Your task to perform on an android device: Show the shopping cart on walmart. Add macbook pro 13 inch to the cart on walmart Image 0: 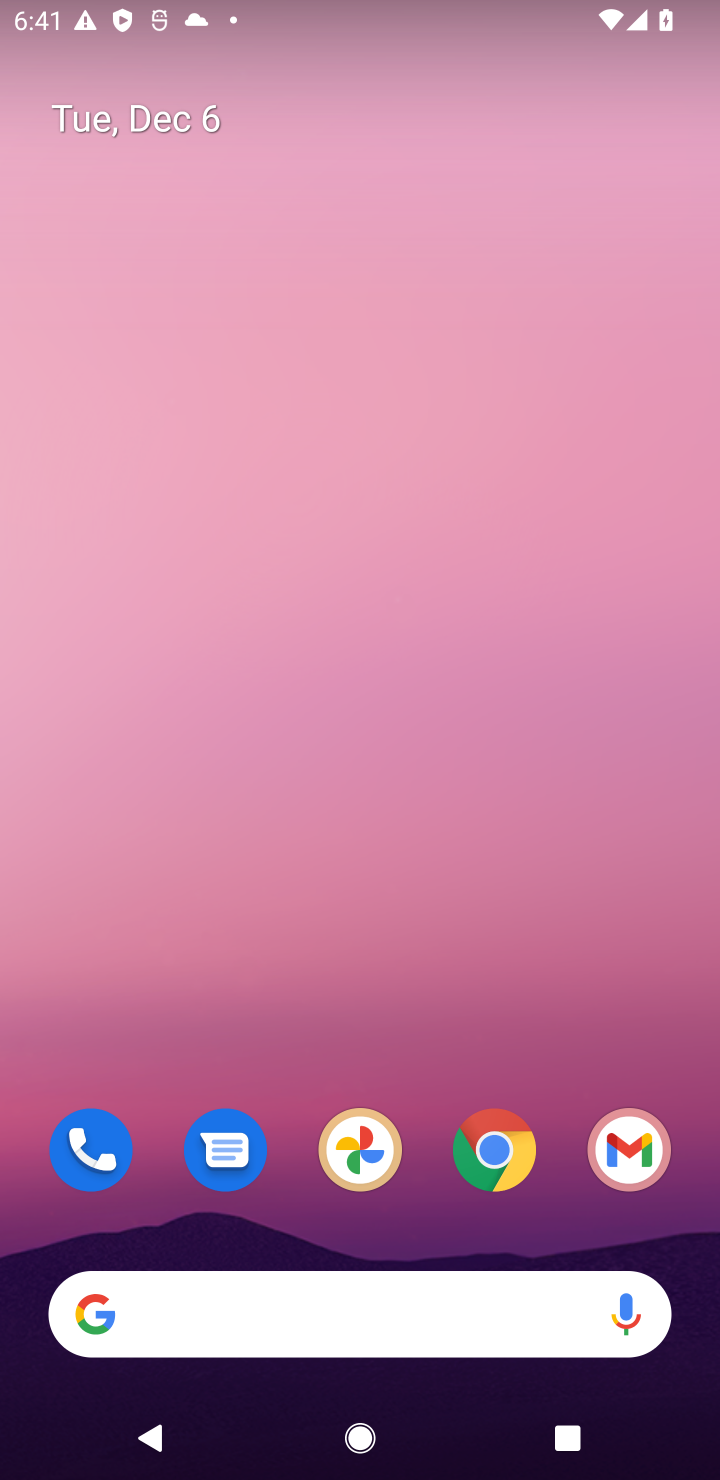
Step 0: click (506, 1162)
Your task to perform on an android device: Show the shopping cart on walmart. Add macbook pro 13 inch to the cart on walmart Image 1: 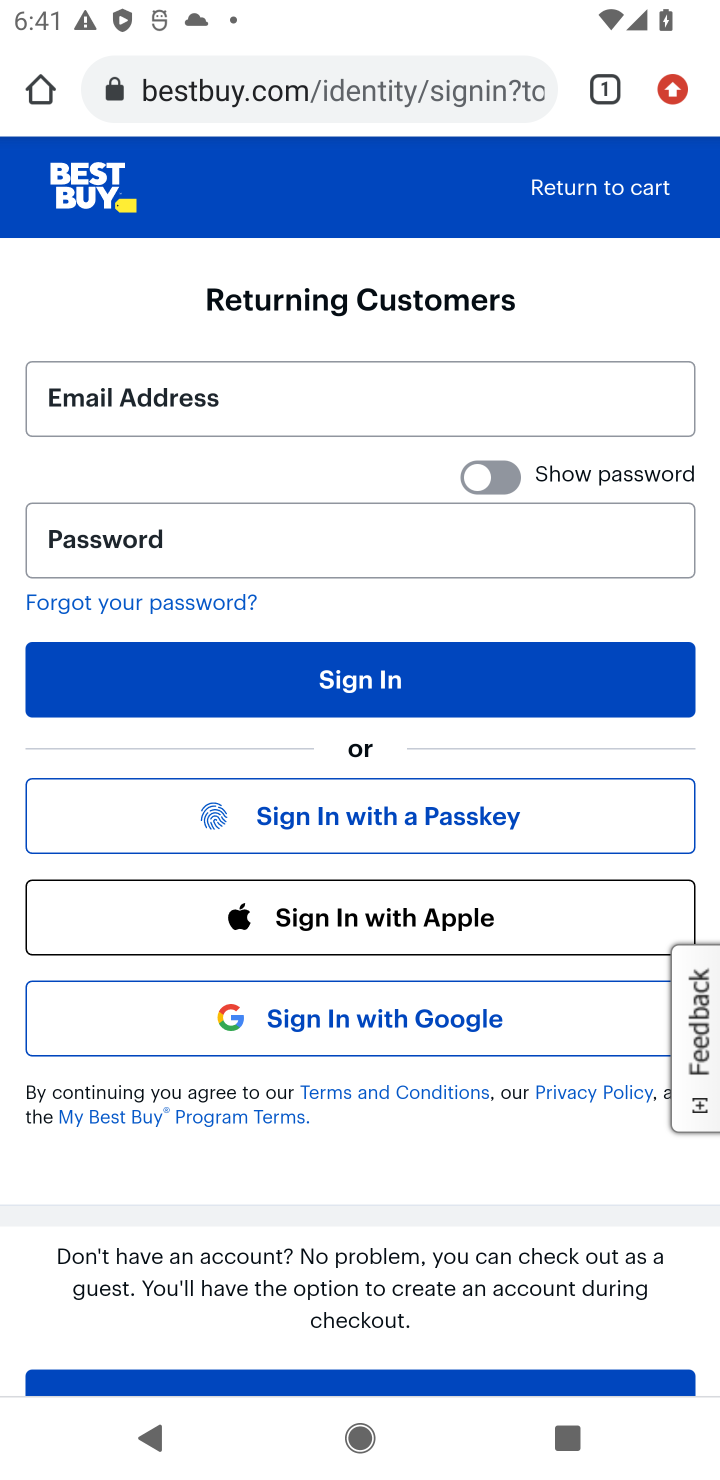
Step 1: click (260, 99)
Your task to perform on an android device: Show the shopping cart on walmart. Add macbook pro 13 inch to the cart on walmart Image 2: 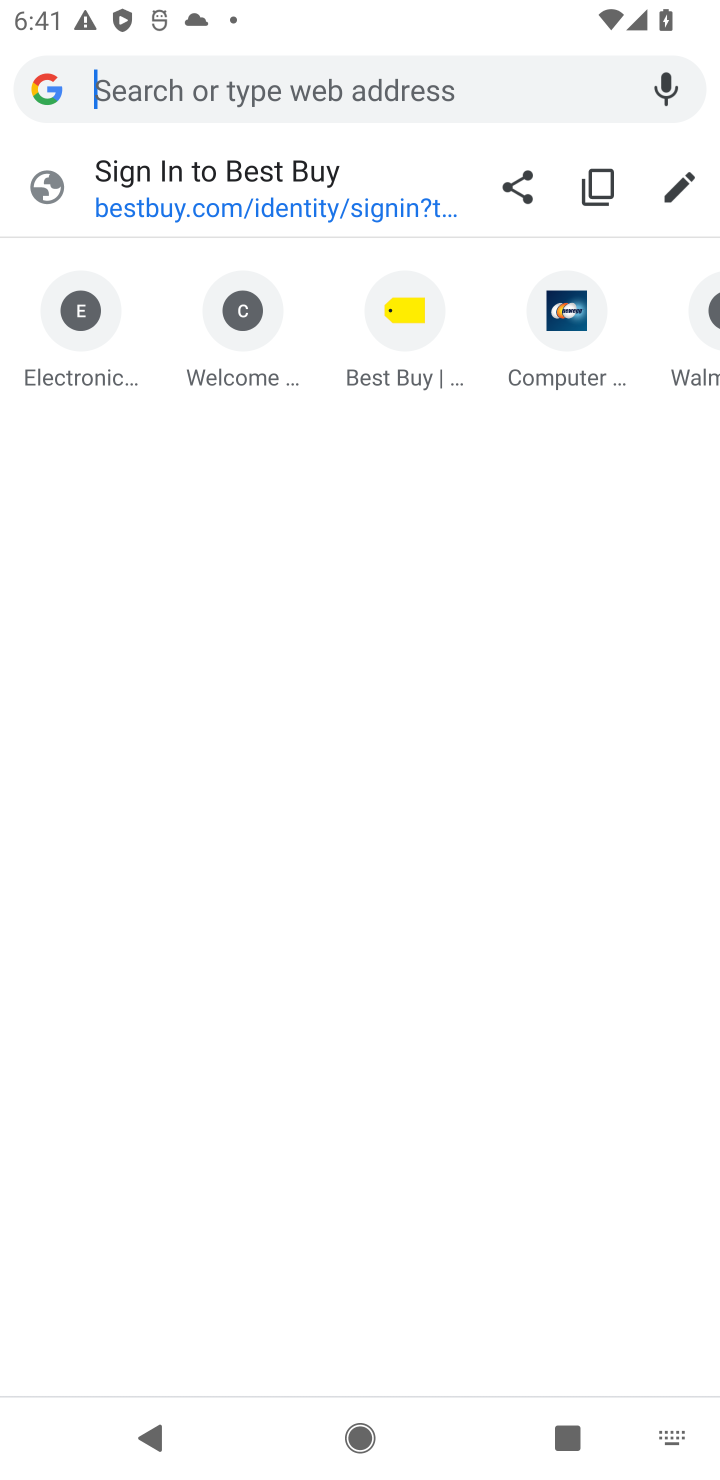
Step 2: click (244, 90)
Your task to perform on an android device: Show the shopping cart on walmart. Add macbook pro 13 inch to the cart on walmart Image 3: 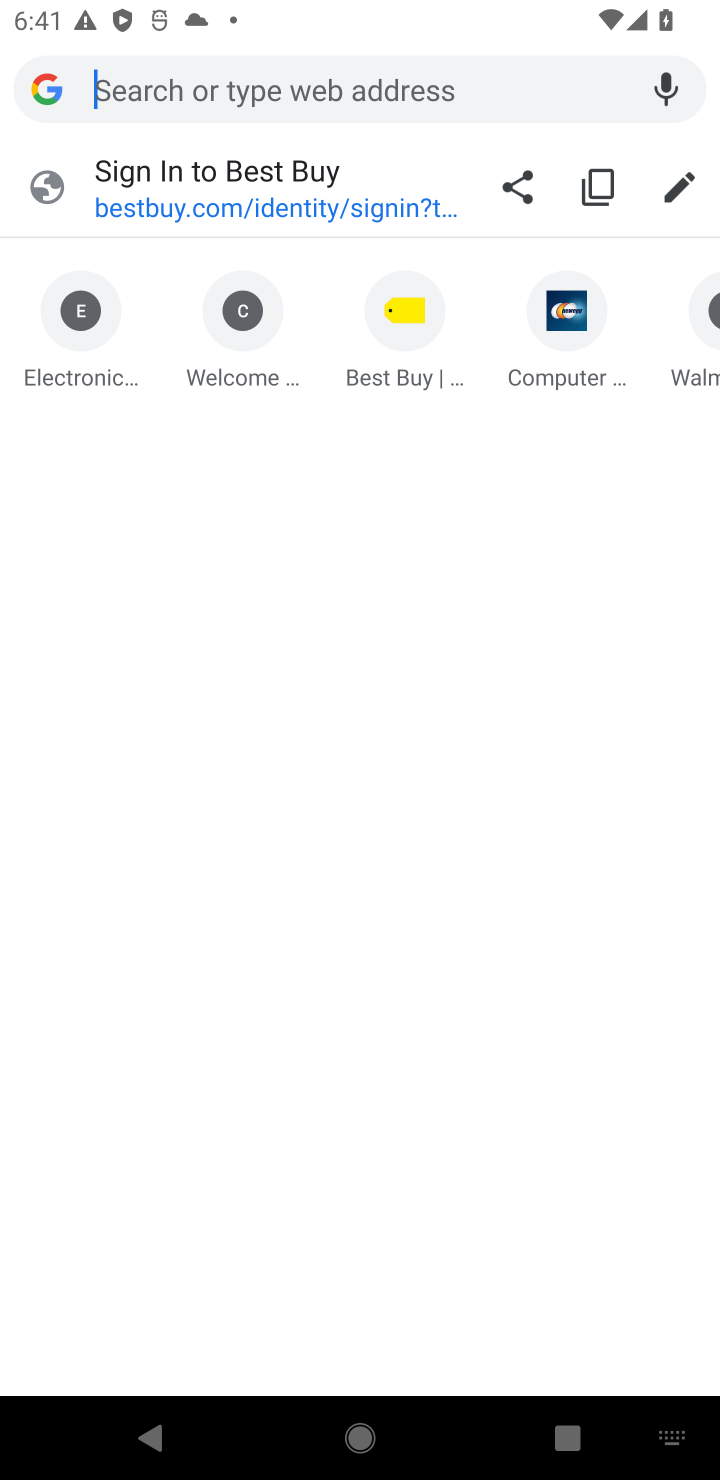
Step 3: type "walmart.com"
Your task to perform on an android device: Show the shopping cart on walmart. Add macbook pro 13 inch to the cart on walmart Image 4: 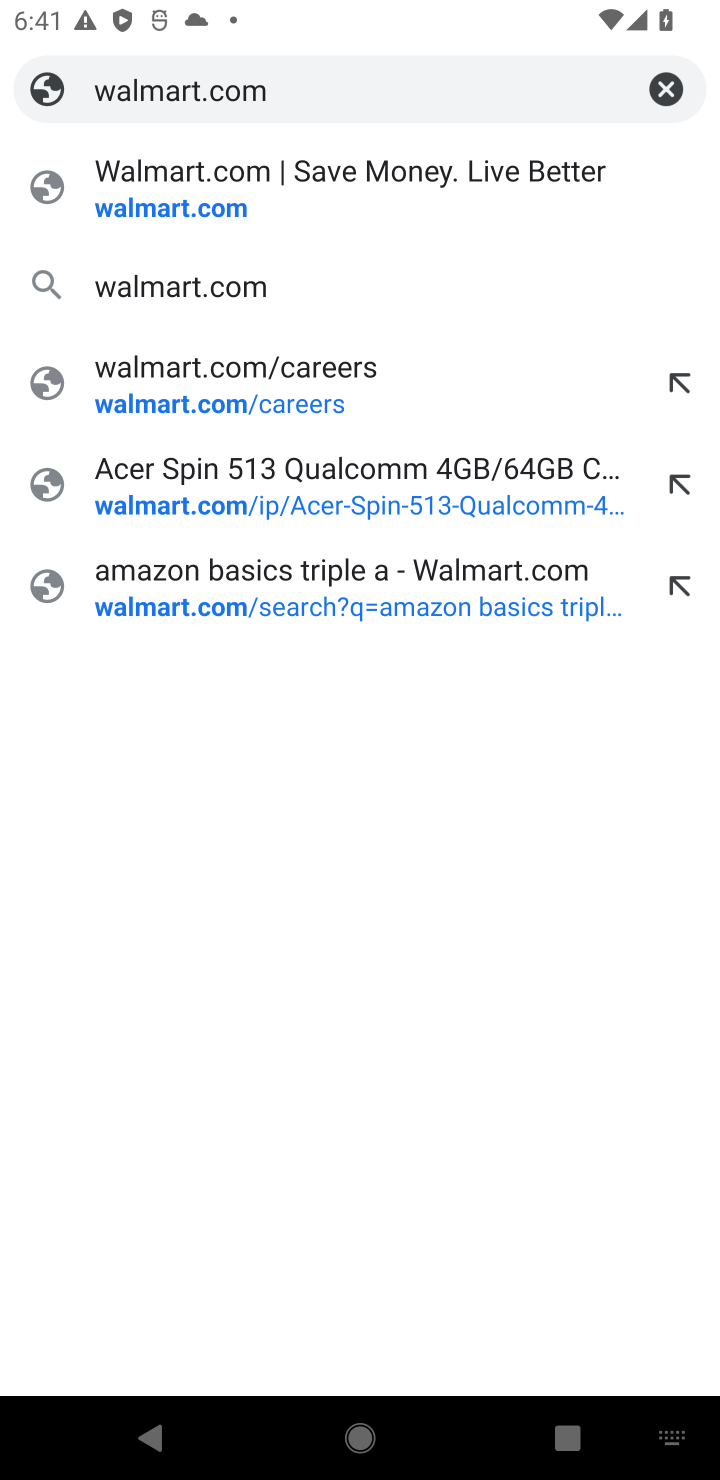
Step 4: click (113, 200)
Your task to perform on an android device: Show the shopping cart on walmart. Add macbook pro 13 inch to the cart on walmart Image 5: 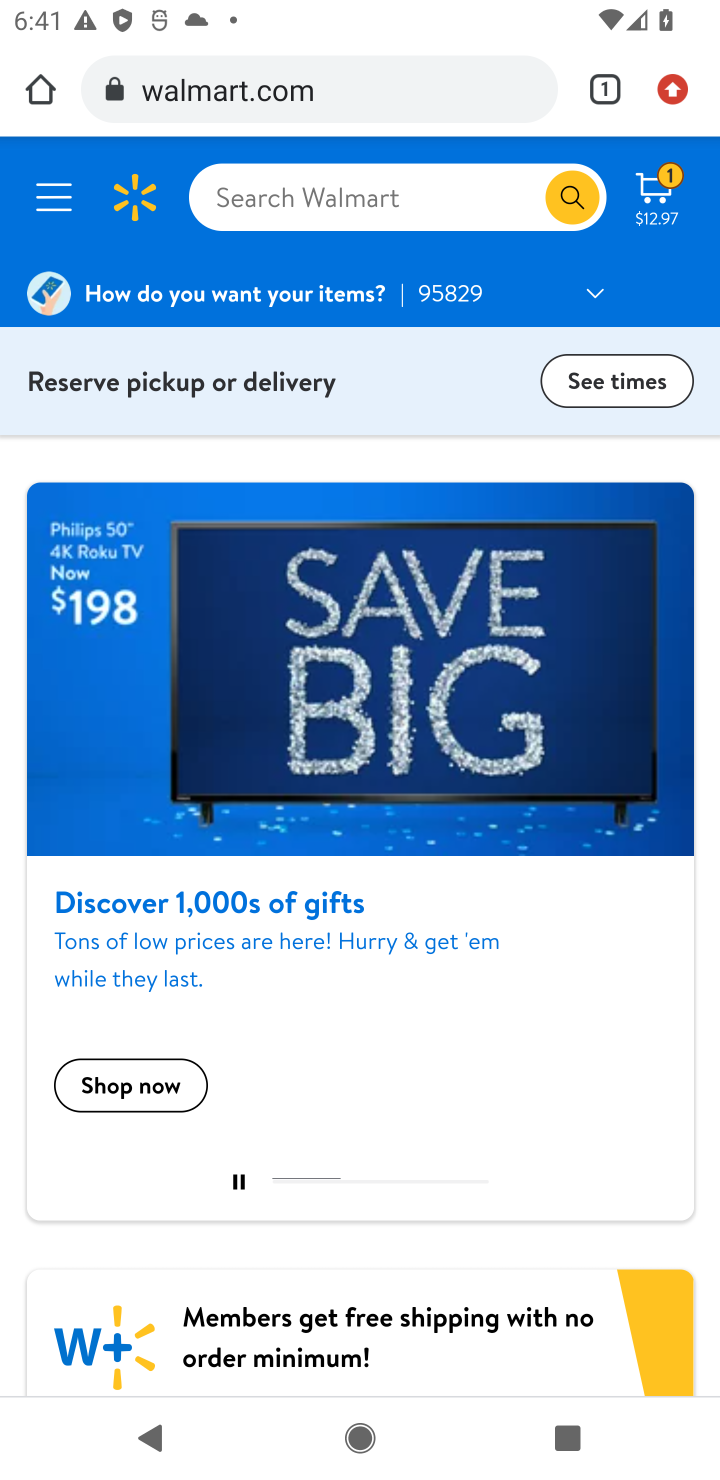
Step 5: click (644, 208)
Your task to perform on an android device: Show the shopping cart on walmart. Add macbook pro 13 inch to the cart on walmart Image 6: 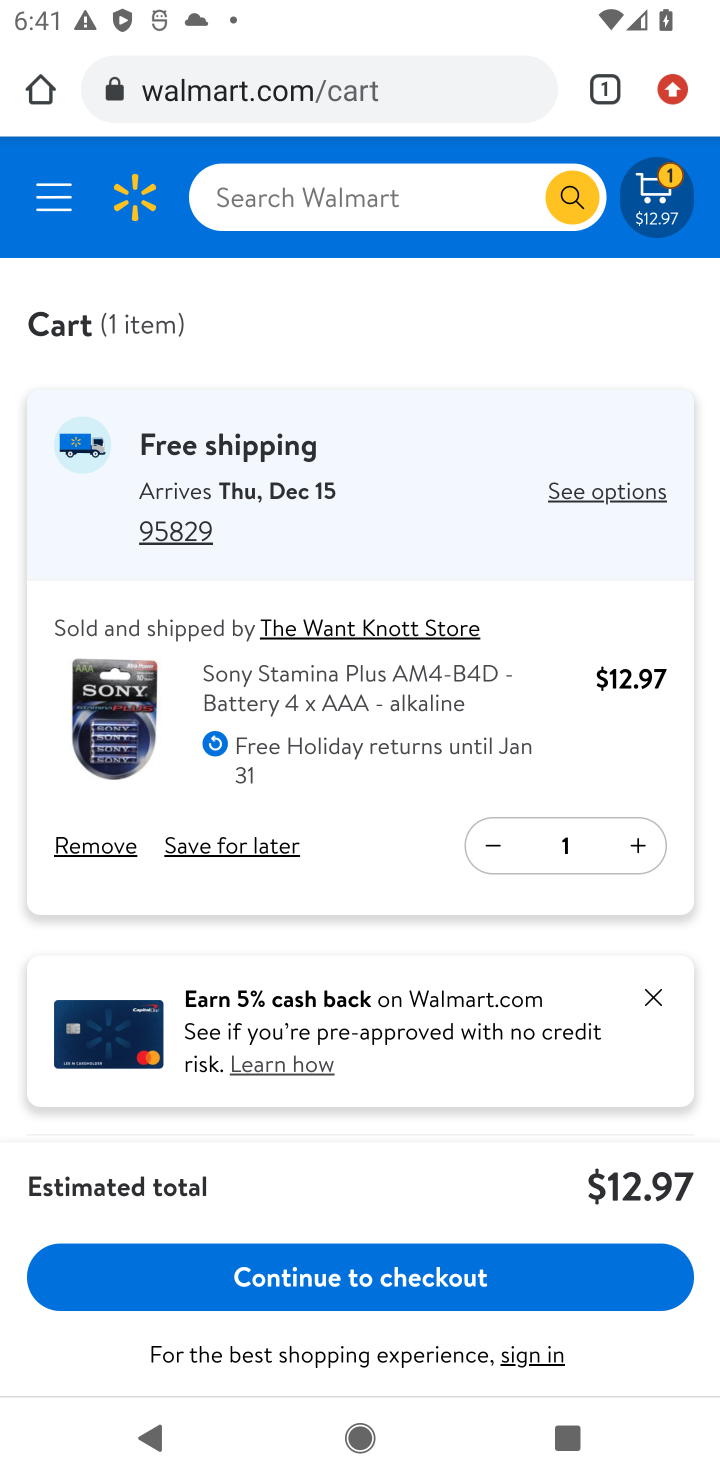
Step 6: click (339, 209)
Your task to perform on an android device: Show the shopping cart on walmart. Add macbook pro 13 inch to the cart on walmart Image 7: 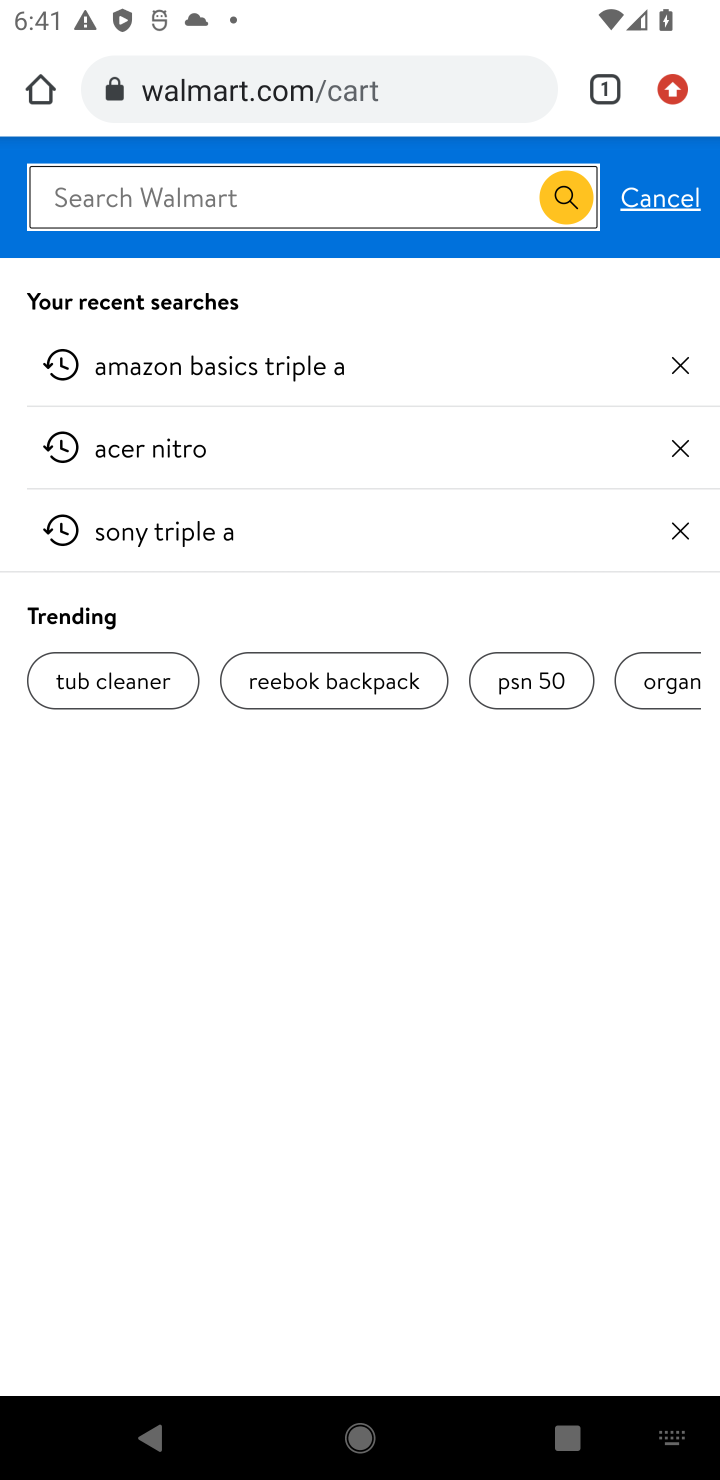
Step 7: type "macbook pro 13 inch"
Your task to perform on an android device: Show the shopping cart on walmart. Add macbook pro 13 inch to the cart on walmart Image 8: 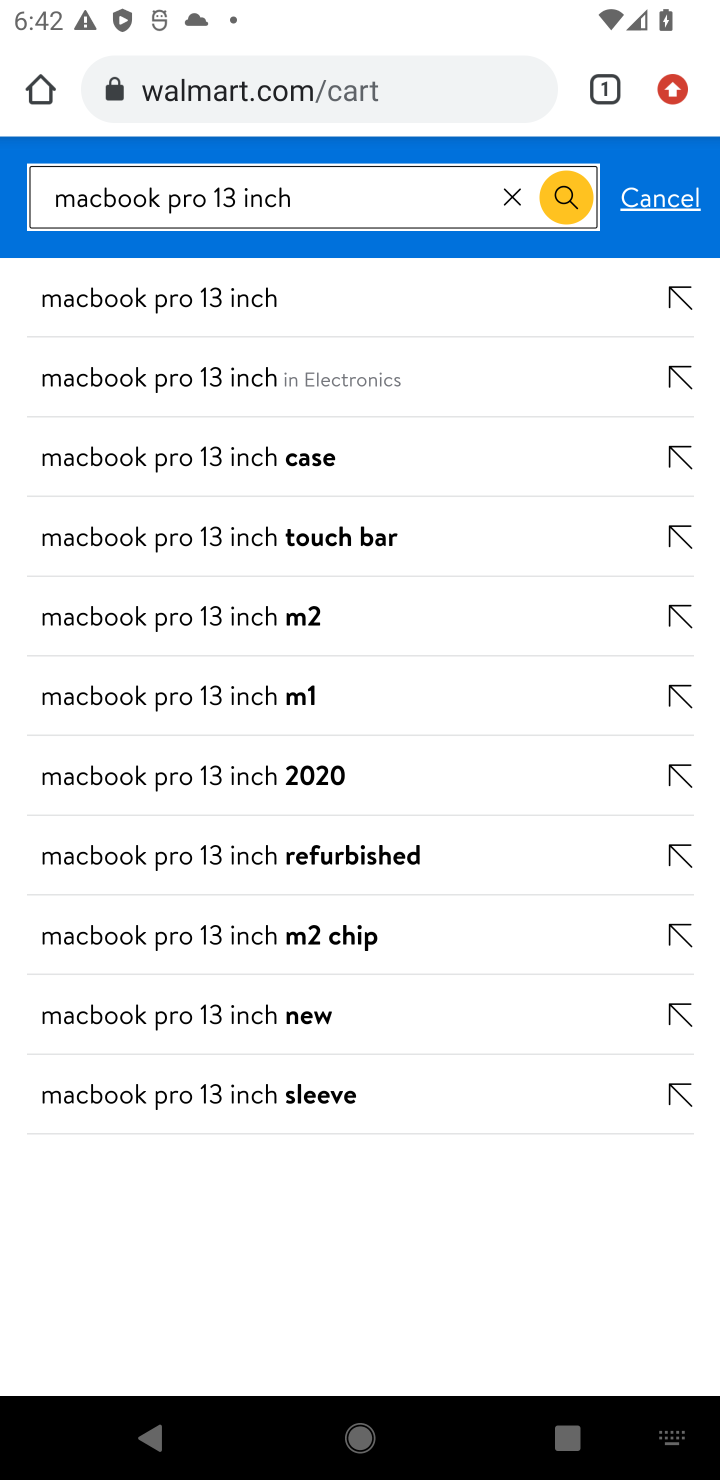
Step 8: click (238, 304)
Your task to perform on an android device: Show the shopping cart on walmart. Add macbook pro 13 inch to the cart on walmart Image 9: 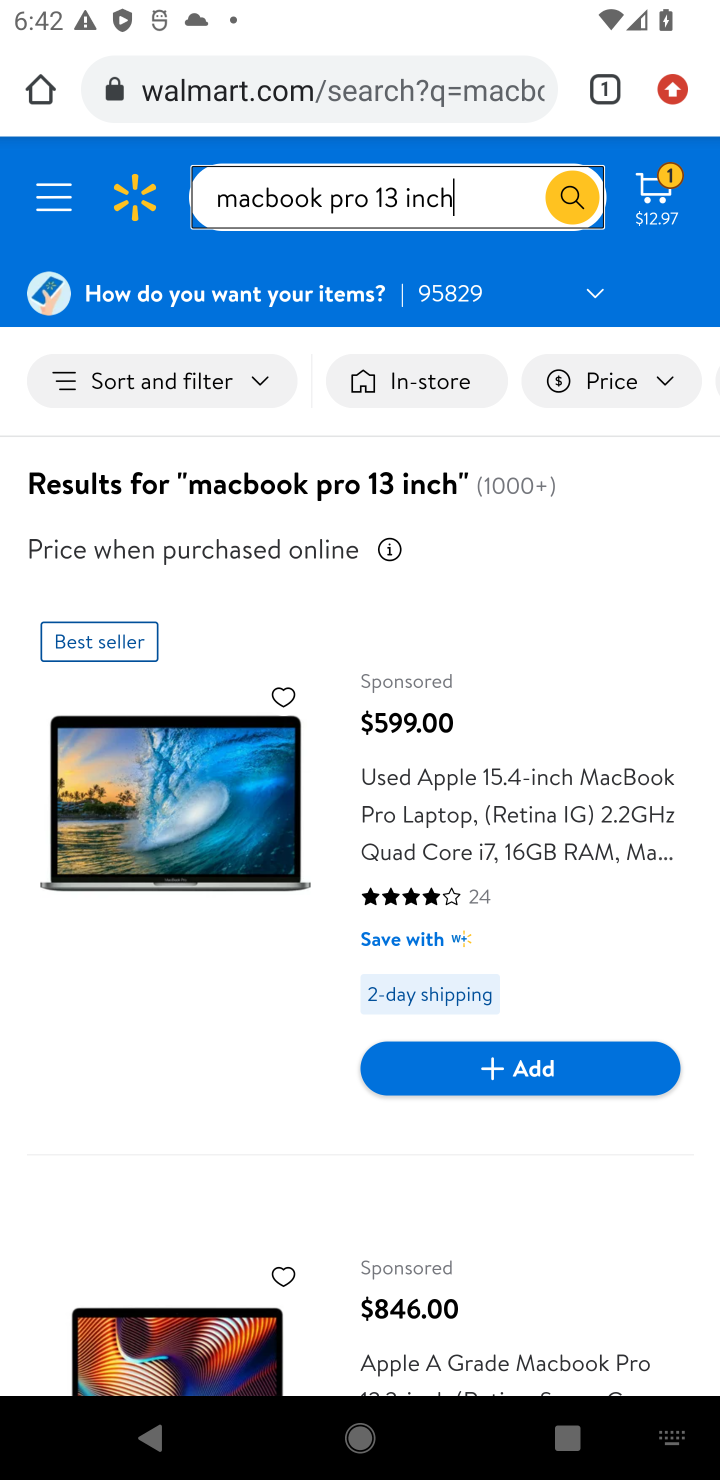
Step 9: drag from (616, 954) to (626, 421)
Your task to perform on an android device: Show the shopping cart on walmart. Add macbook pro 13 inch to the cart on walmart Image 10: 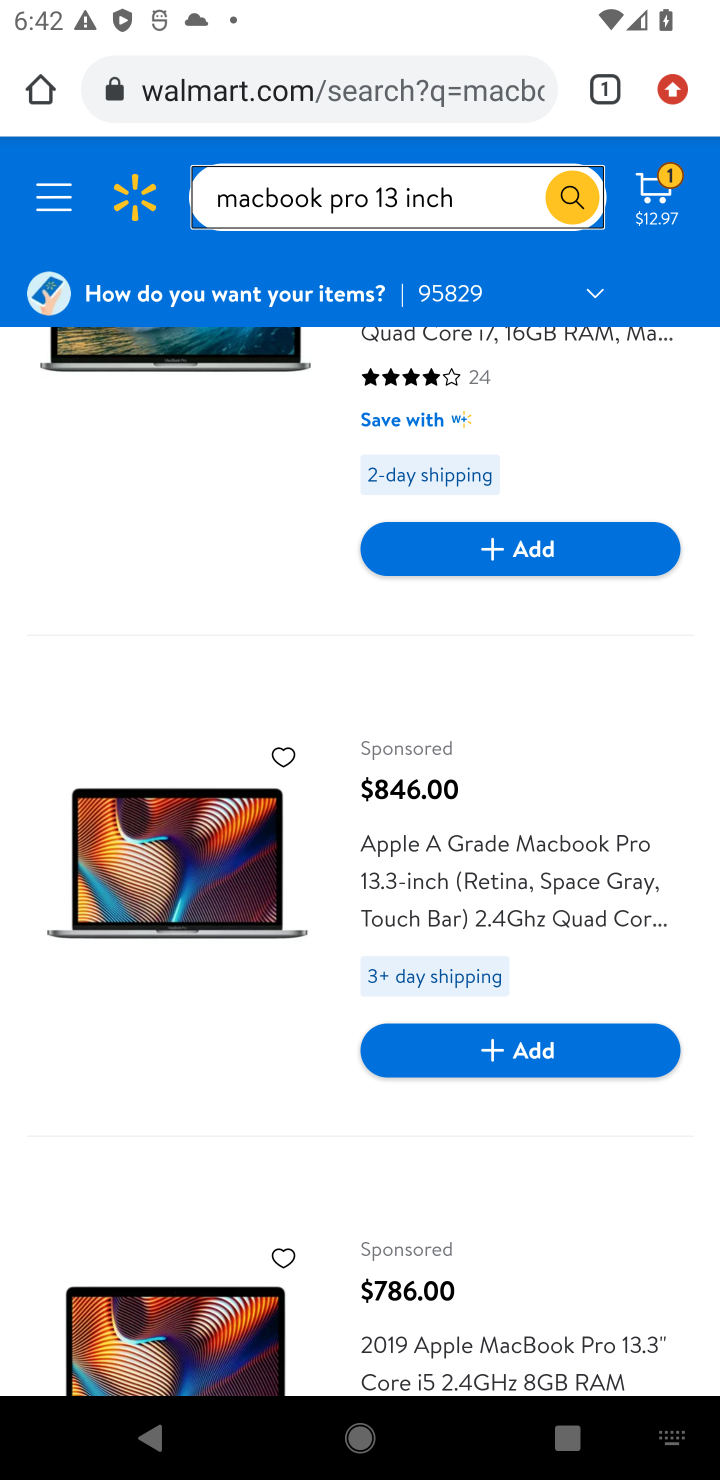
Step 10: click (516, 1053)
Your task to perform on an android device: Show the shopping cart on walmart. Add macbook pro 13 inch to the cart on walmart Image 11: 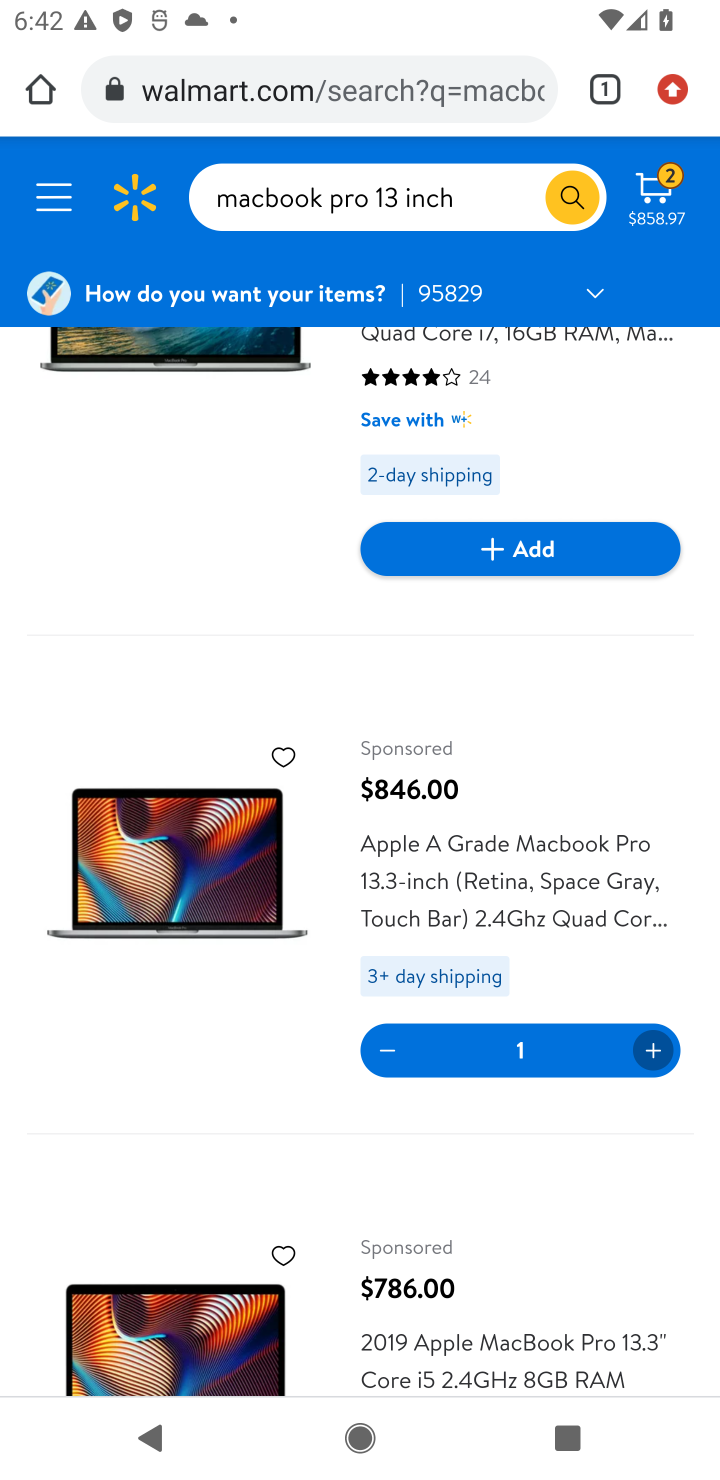
Step 11: task complete